Your task to perform on an android device: empty trash in google photos Image 0: 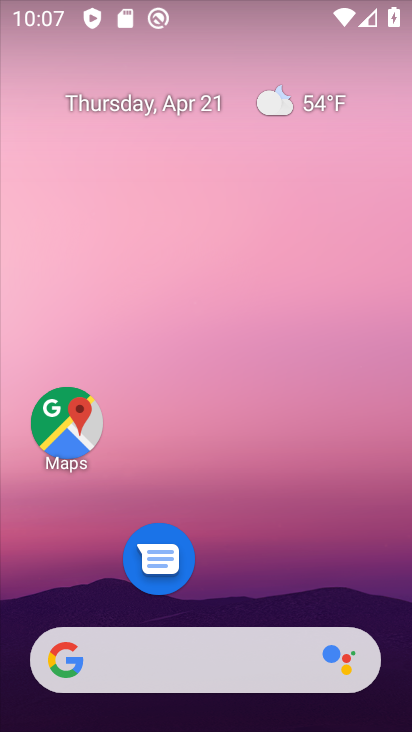
Step 0: drag from (285, 395) to (285, 136)
Your task to perform on an android device: empty trash in google photos Image 1: 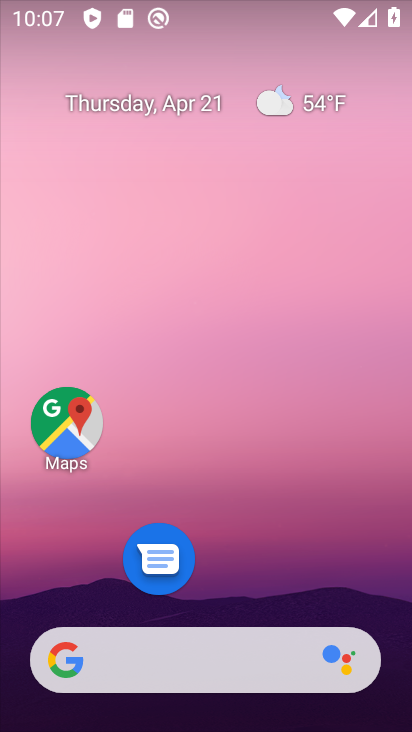
Step 1: drag from (266, 493) to (289, 53)
Your task to perform on an android device: empty trash in google photos Image 2: 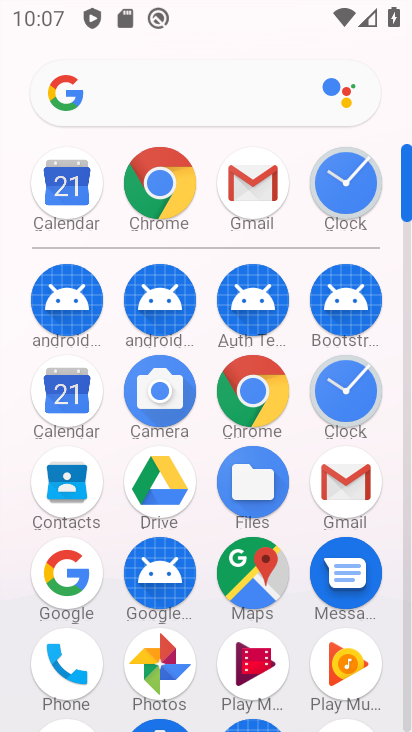
Step 2: click (160, 670)
Your task to perform on an android device: empty trash in google photos Image 3: 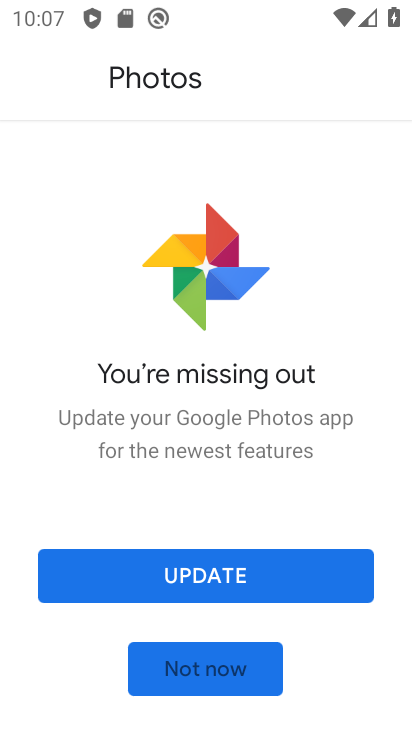
Step 3: click (224, 661)
Your task to perform on an android device: empty trash in google photos Image 4: 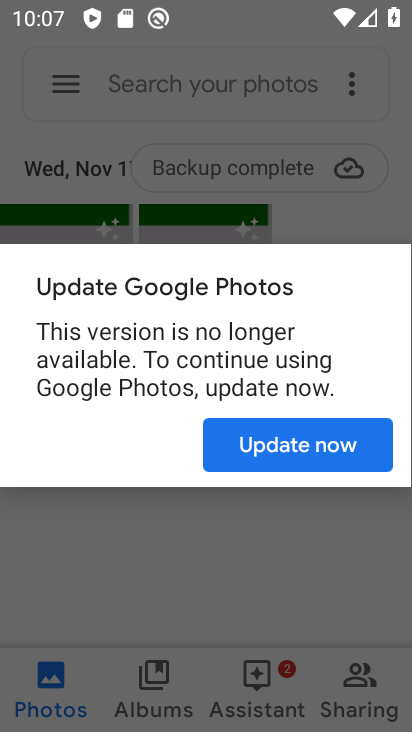
Step 4: click (267, 440)
Your task to perform on an android device: empty trash in google photos Image 5: 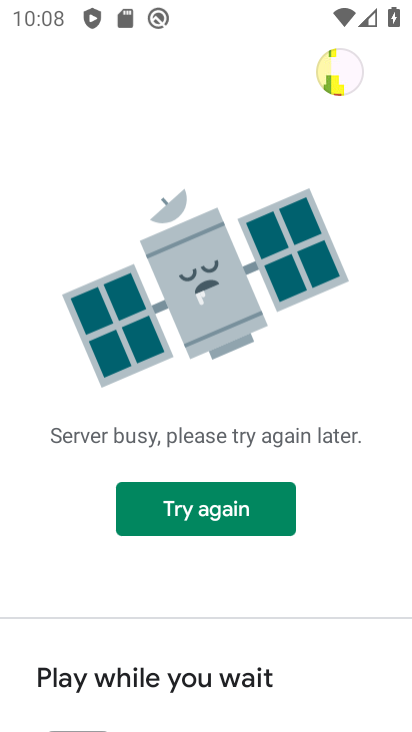
Step 5: click (226, 523)
Your task to perform on an android device: empty trash in google photos Image 6: 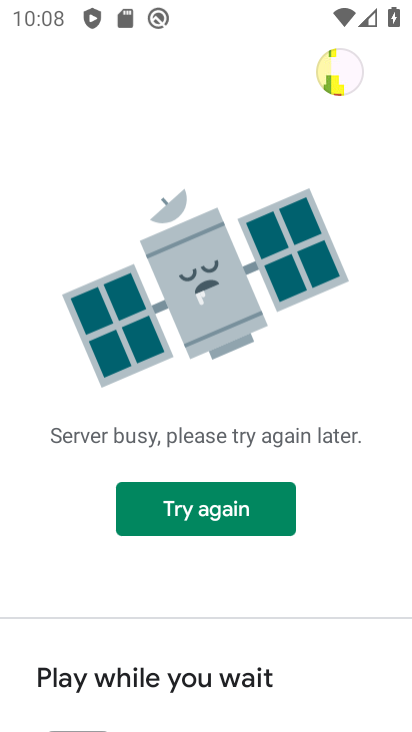
Step 6: press back button
Your task to perform on an android device: empty trash in google photos Image 7: 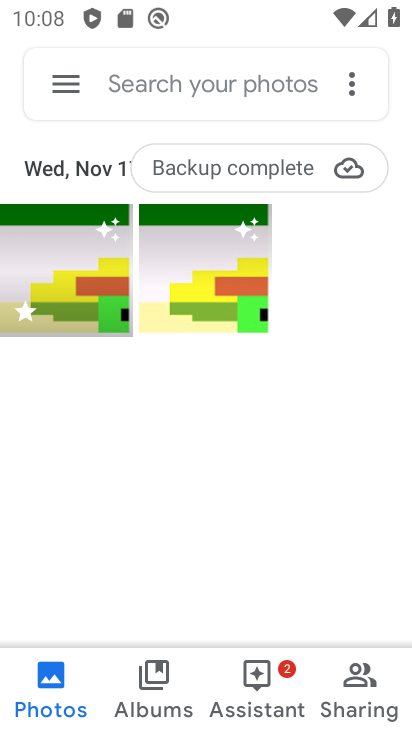
Step 7: click (52, 72)
Your task to perform on an android device: empty trash in google photos Image 8: 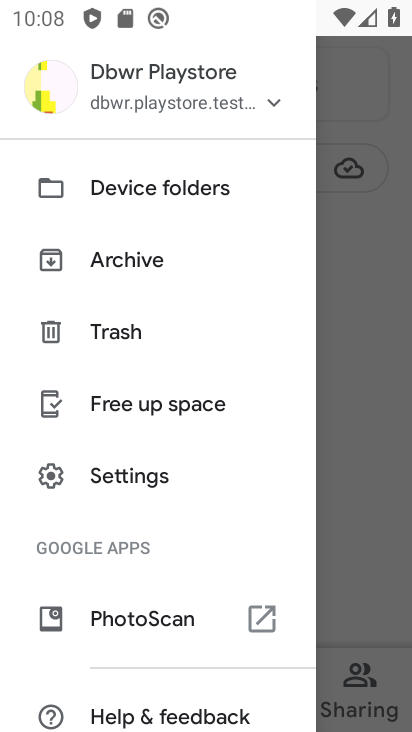
Step 8: click (123, 329)
Your task to perform on an android device: empty trash in google photos Image 9: 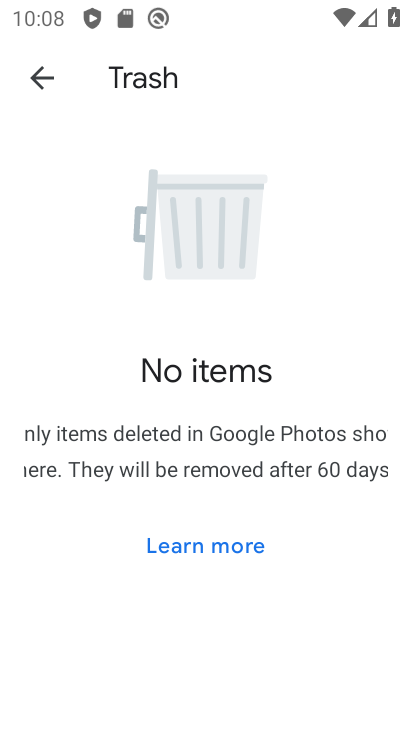
Step 9: task complete